Your task to perform on an android device: change the clock display to analog Image 0: 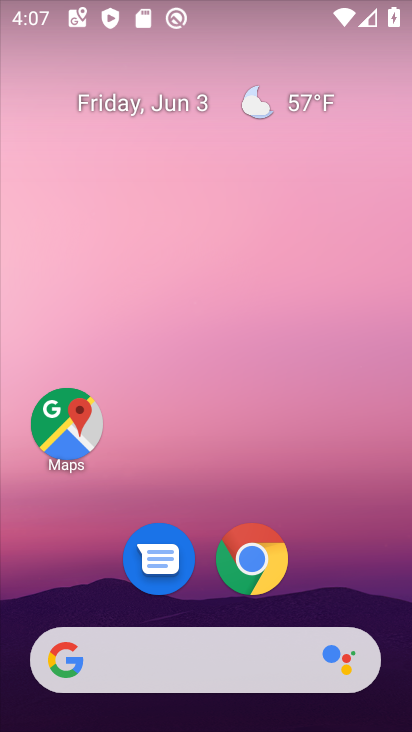
Step 0: drag from (330, 567) to (320, 100)
Your task to perform on an android device: change the clock display to analog Image 1: 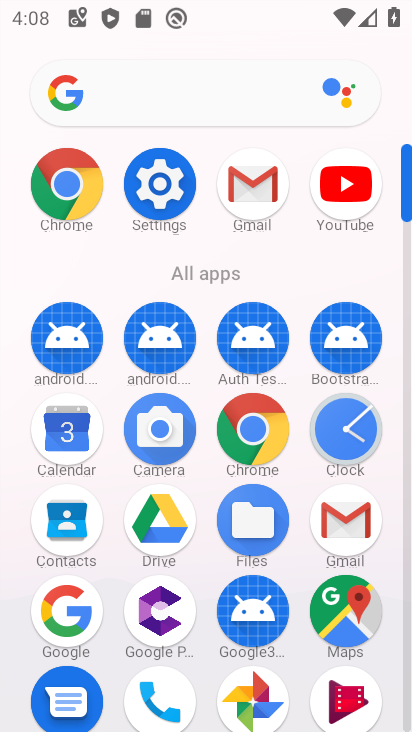
Step 1: click (345, 426)
Your task to perform on an android device: change the clock display to analog Image 2: 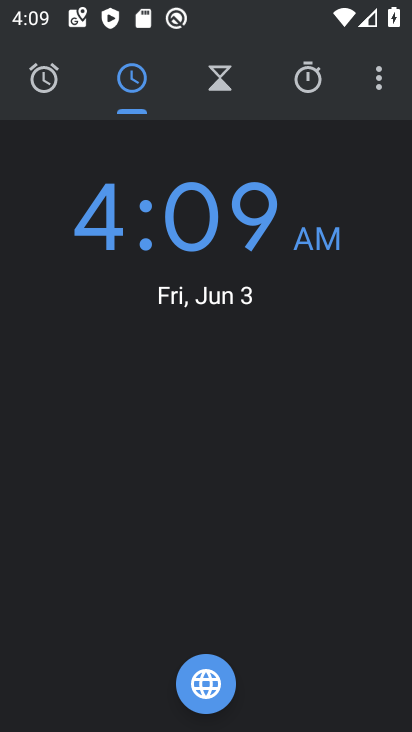
Step 2: press home button
Your task to perform on an android device: change the clock display to analog Image 3: 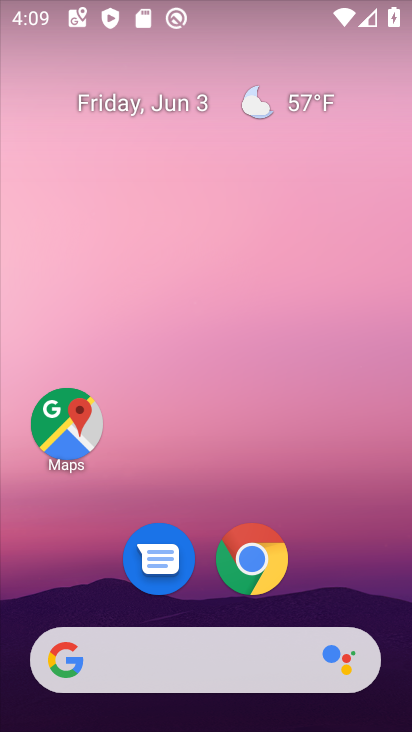
Step 3: drag from (311, 586) to (295, 94)
Your task to perform on an android device: change the clock display to analog Image 4: 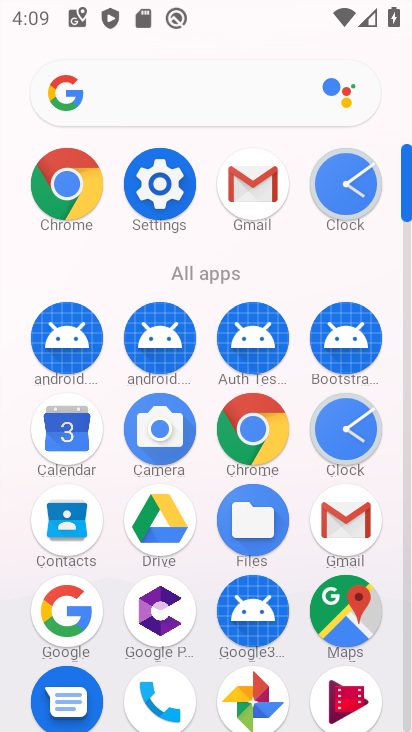
Step 4: click (341, 436)
Your task to perform on an android device: change the clock display to analog Image 5: 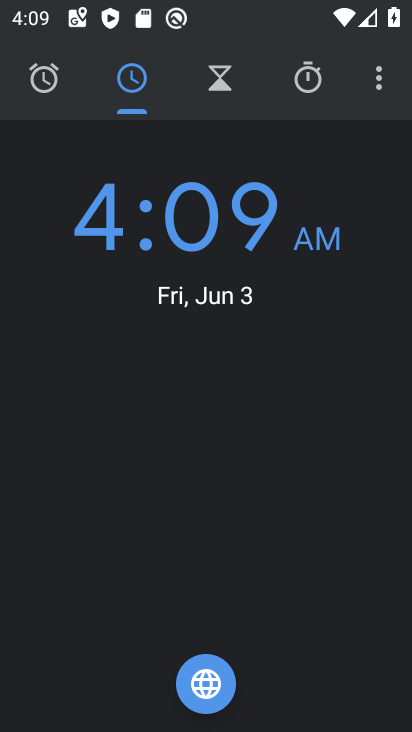
Step 5: click (374, 87)
Your task to perform on an android device: change the clock display to analog Image 6: 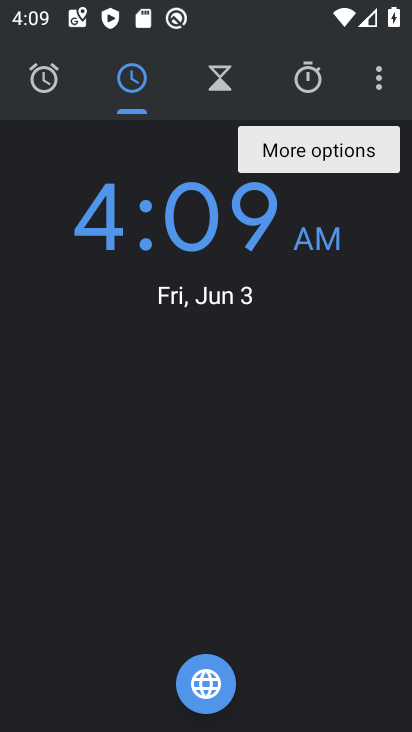
Step 6: click (374, 87)
Your task to perform on an android device: change the clock display to analog Image 7: 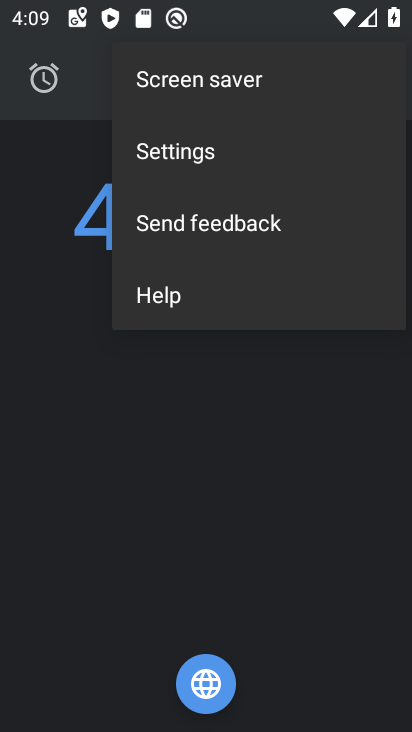
Step 7: click (142, 150)
Your task to perform on an android device: change the clock display to analog Image 8: 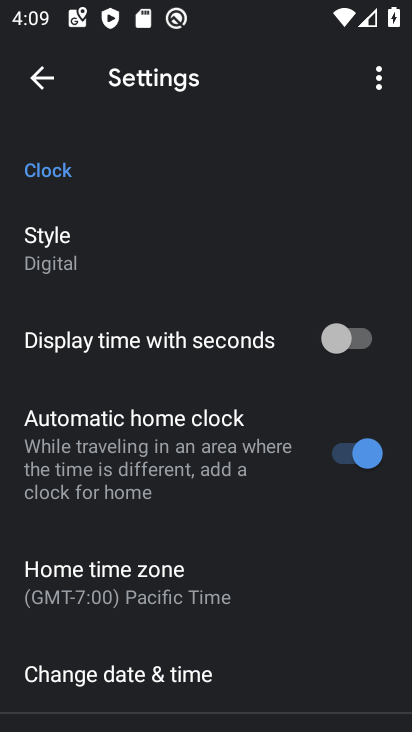
Step 8: drag from (324, 602) to (318, 340)
Your task to perform on an android device: change the clock display to analog Image 9: 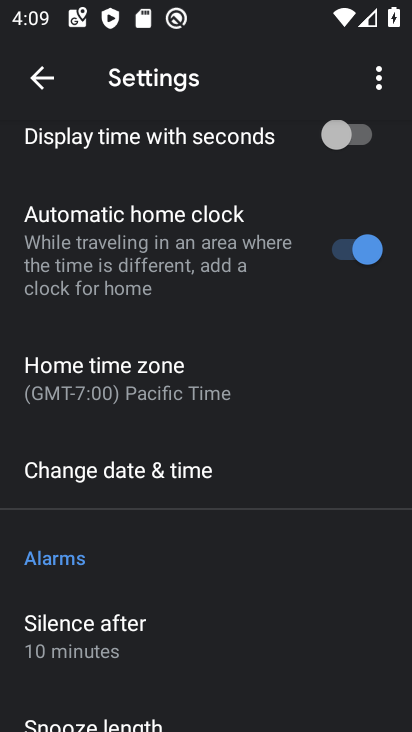
Step 9: drag from (318, 340) to (321, 631)
Your task to perform on an android device: change the clock display to analog Image 10: 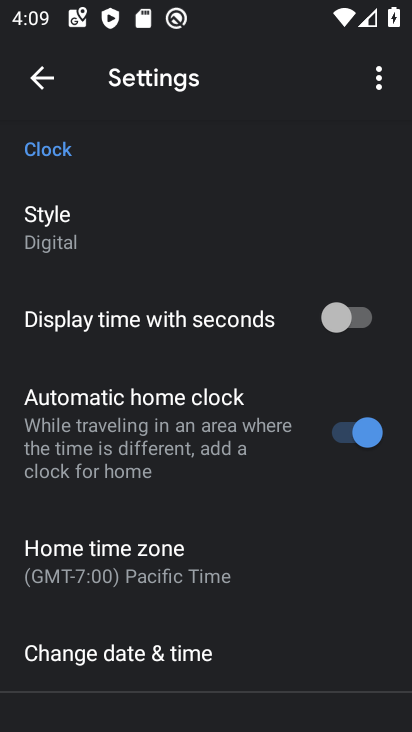
Step 10: click (81, 226)
Your task to perform on an android device: change the clock display to analog Image 11: 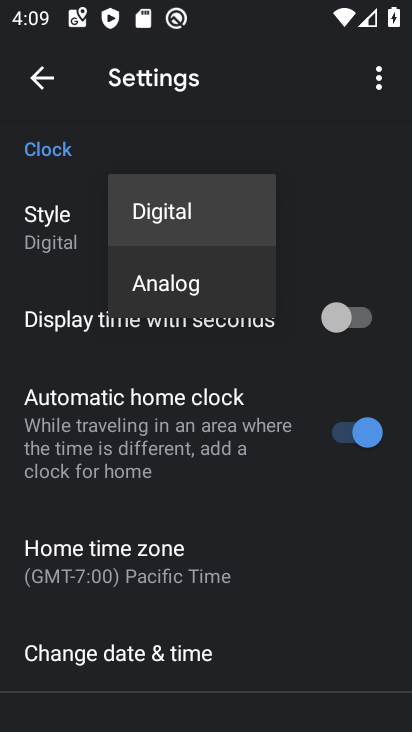
Step 11: click (160, 286)
Your task to perform on an android device: change the clock display to analog Image 12: 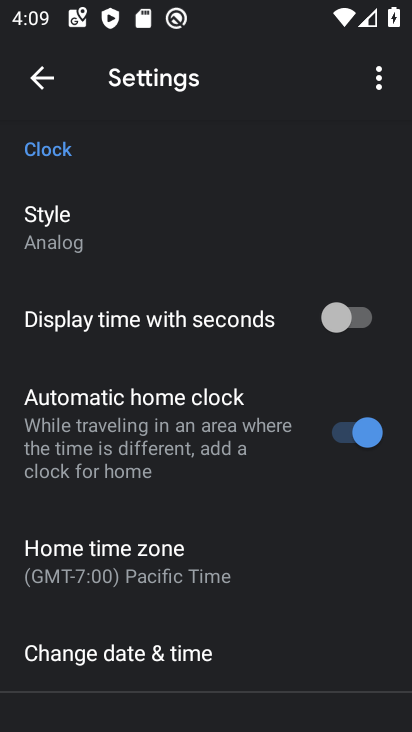
Step 12: task complete